Your task to perform on an android device: Open calendar and show me the fourth week of next month Image 0: 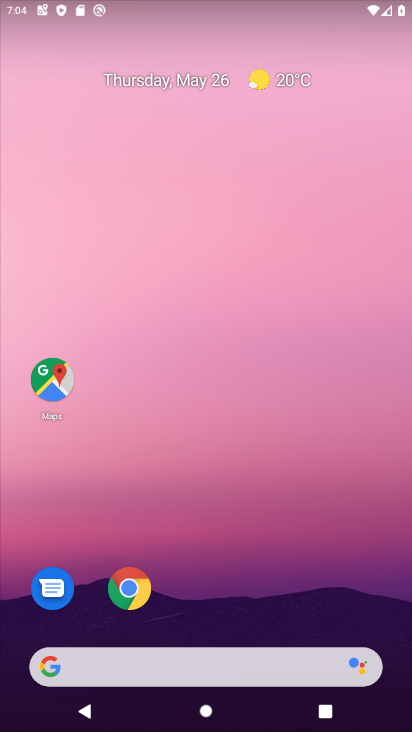
Step 0: drag from (364, 605) to (237, 15)
Your task to perform on an android device: Open calendar and show me the fourth week of next month Image 1: 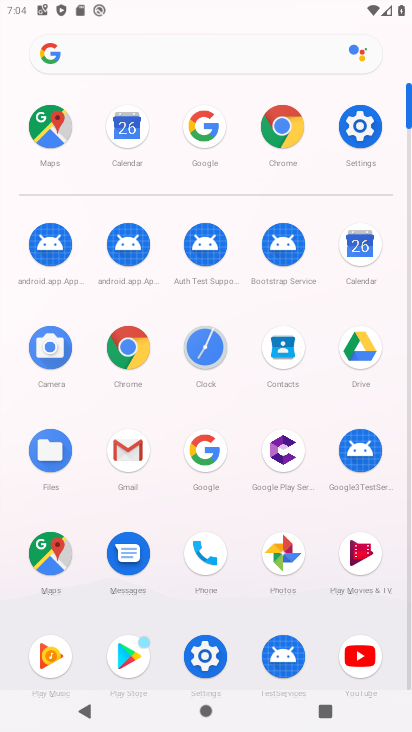
Step 1: click (343, 251)
Your task to perform on an android device: Open calendar and show me the fourth week of next month Image 2: 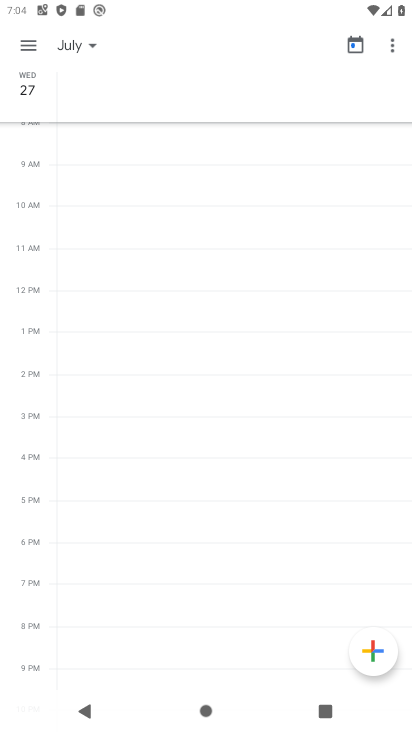
Step 2: click (66, 45)
Your task to perform on an android device: Open calendar and show me the fourth week of next month Image 3: 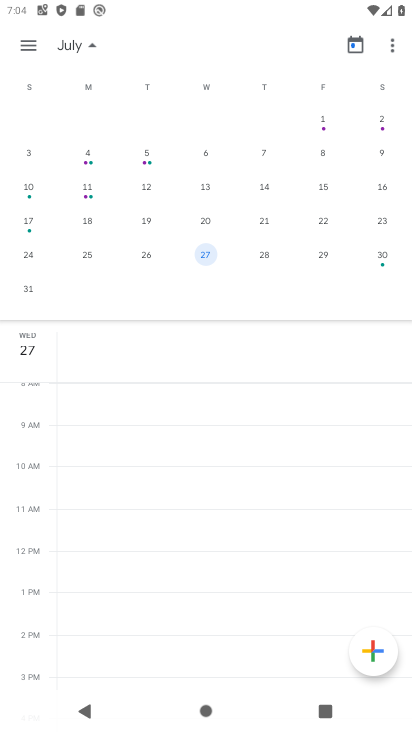
Step 3: drag from (308, 202) to (4, 137)
Your task to perform on an android device: Open calendar and show me the fourth week of next month Image 4: 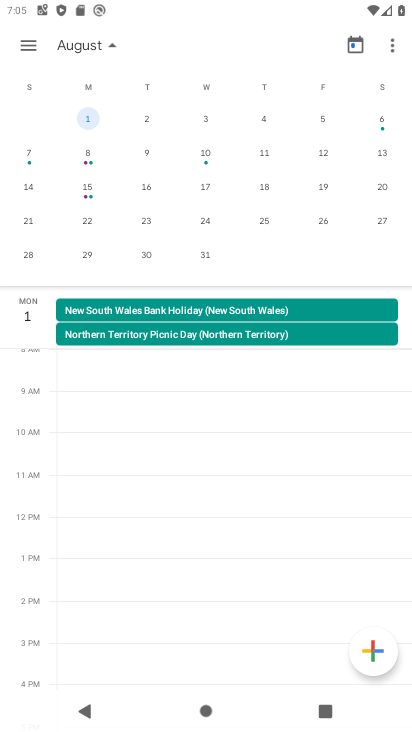
Step 4: click (86, 250)
Your task to perform on an android device: Open calendar and show me the fourth week of next month Image 5: 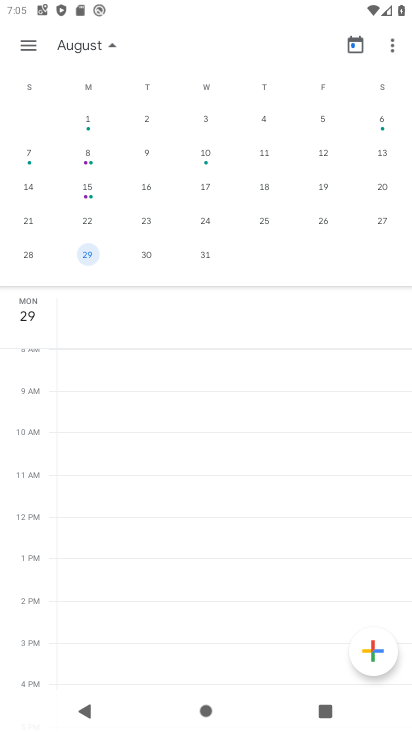
Step 5: task complete